Your task to perform on an android device: remove spam from my inbox in the gmail app Image 0: 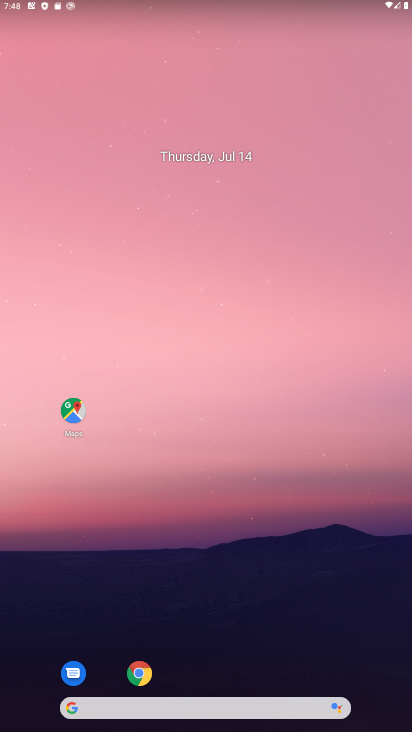
Step 0: click (407, 617)
Your task to perform on an android device: remove spam from my inbox in the gmail app Image 1: 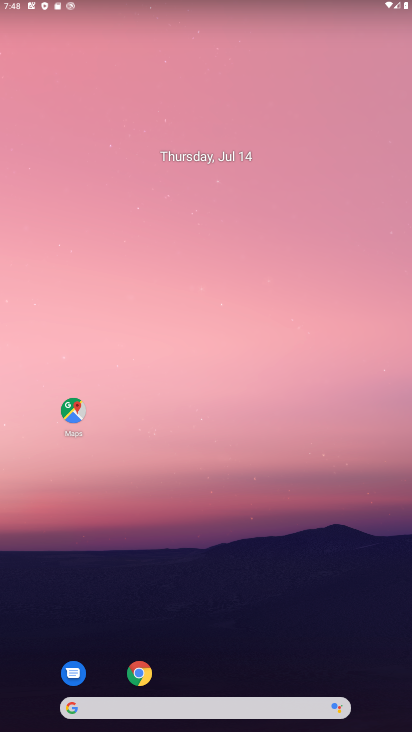
Step 1: drag from (190, 673) to (342, 225)
Your task to perform on an android device: remove spam from my inbox in the gmail app Image 2: 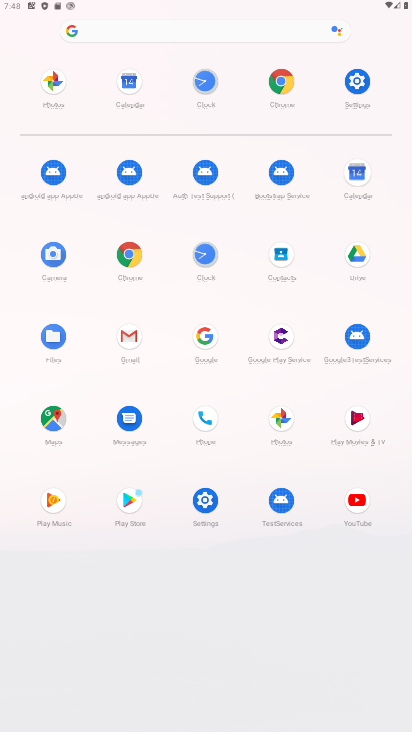
Step 2: click (127, 327)
Your task to perform on an android device: remove spam from my inbox in the gmail app Image 3: 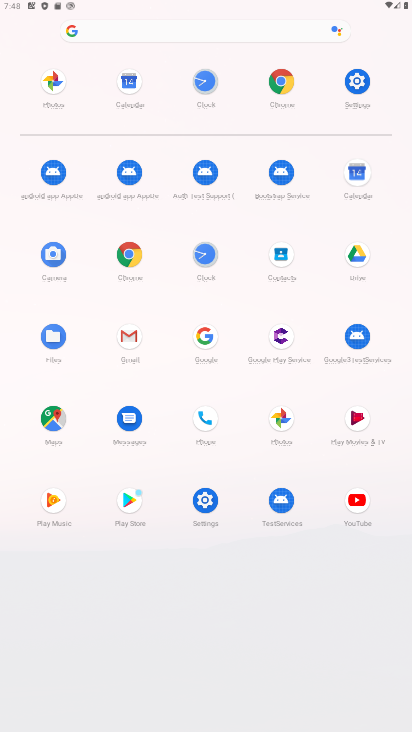
Step 3: click (127, 327)
Your task to perform on an android device: remove spam from my inbox in the gmail app Image 4: 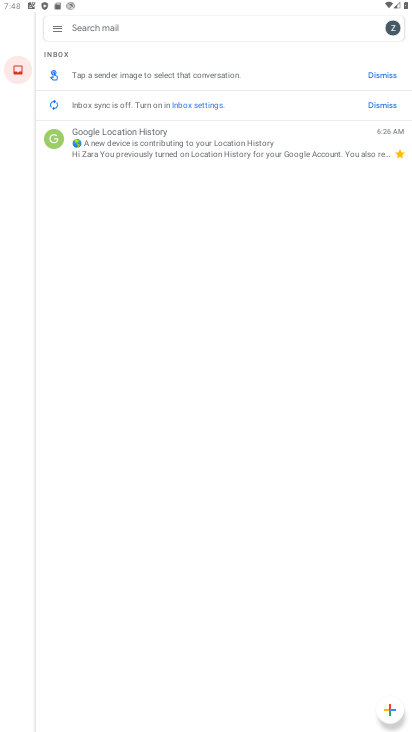
Step 4: click (53, 27)
Your task to perform on an android device: remove spam from my inbox in the gmail app Image 5: 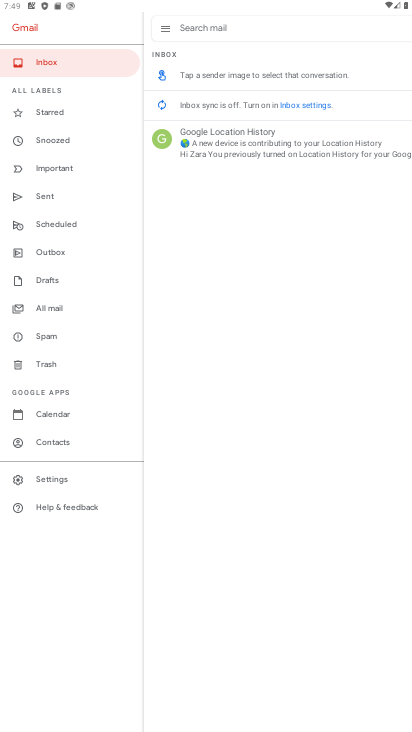
Step 5: click (52, 341)
Your task to perform on an android device: remove spam from my inbox in the gmail app Image 6: 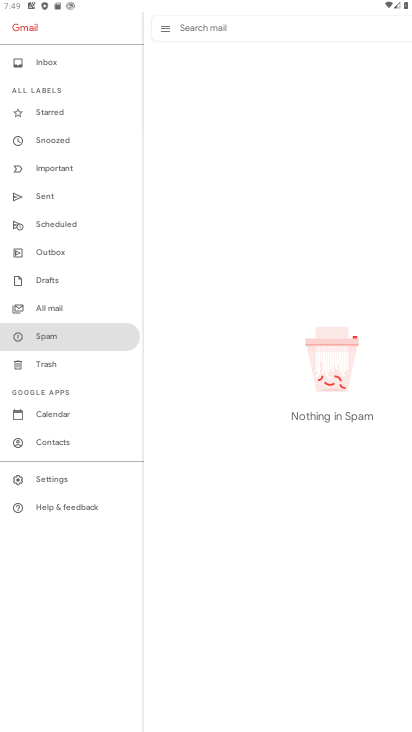
Step 6: drag from (246, 385) to (256, 306)
Your task to perform on an android device: remove spam from my inbox in the gmail app Image 7: 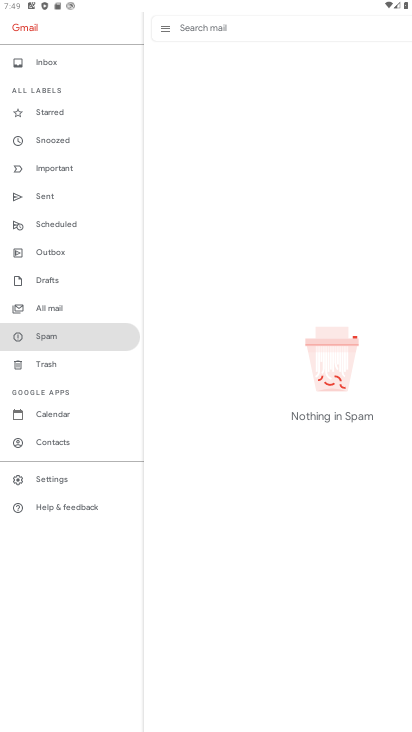
Step 7: click (252, 220)
Your task to perform on an android device: remove spam from my inbox in the gmail app Image 8: 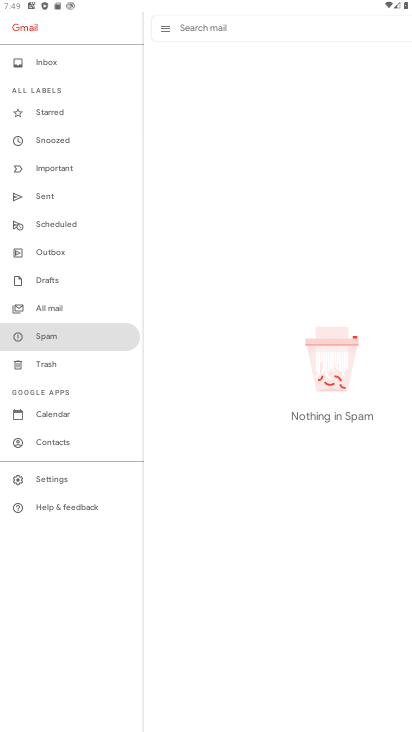
Step 8: task complete